Your task to perform on an android device: check storage Image 0: 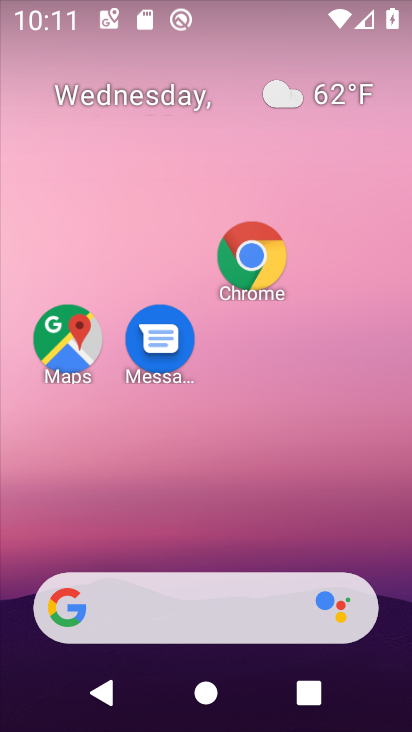
Step 0: drag from (209, 433) to (182, 100)
Your task to perform on an android device: check storage Image 1: 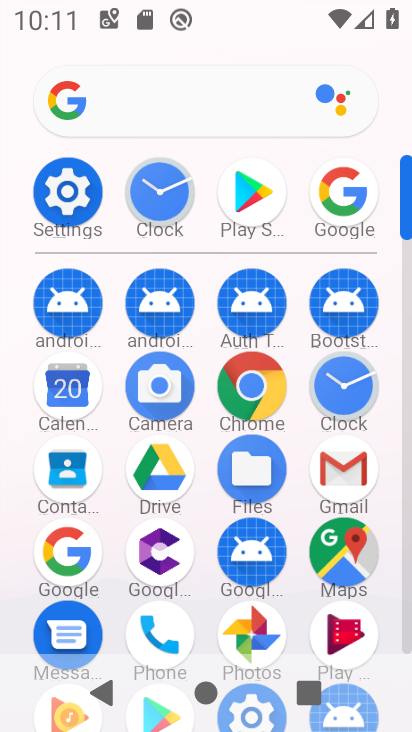
Step 1: click (69, 197)
Your task to perform on an android device: check storage Image 2: 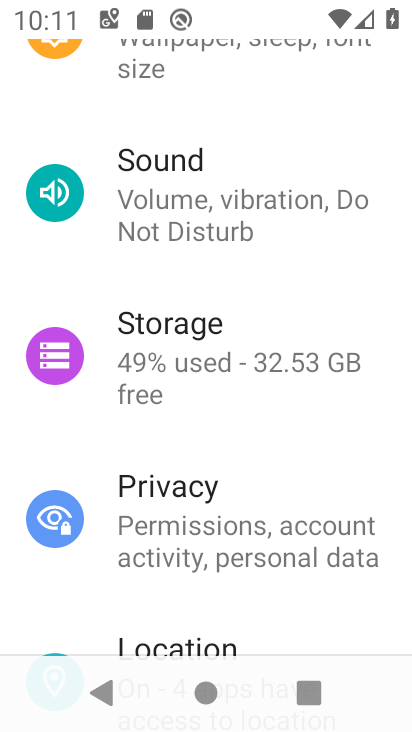
Step 2: click (190, 358)
Your task to perform on an android device: check storage Image 3: 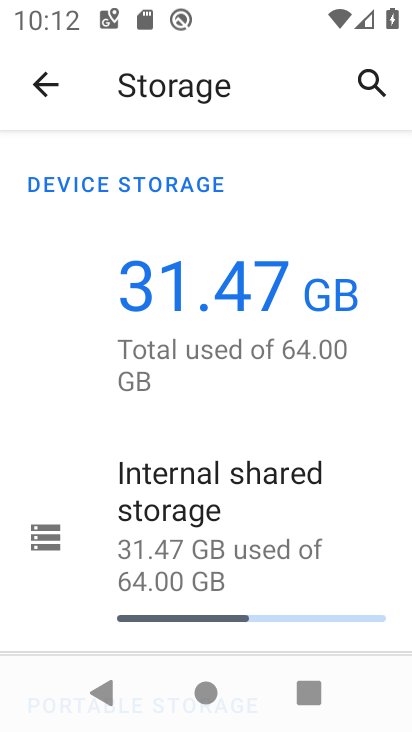
Step 3: task complete